Your task to perform on an android device: turn pop-ups off in chrome Image 0: 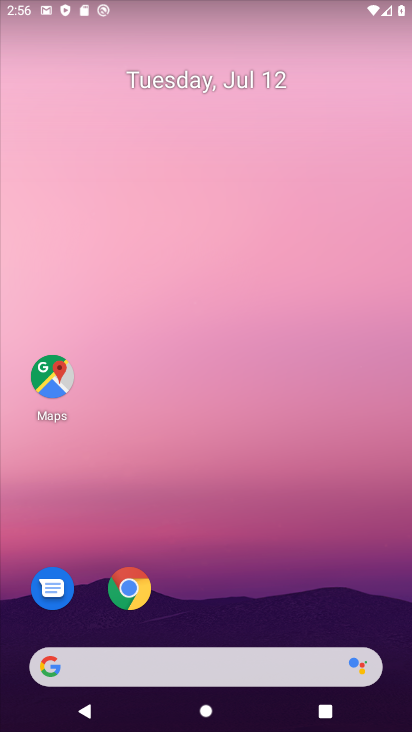
Step 0: drag from (230, 613) to (271, 17)
Your task to perform on an android device: turn pop-ups off in chrome Image 1: 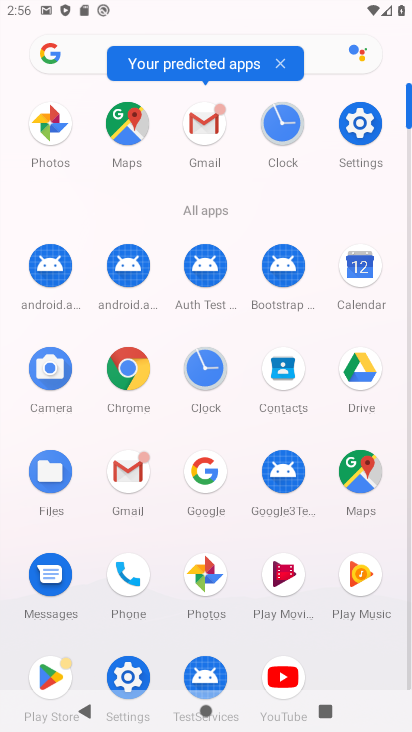
Step 1: click (134, 382)
Your task to perform on an android device: turn pop-ups off in chrome Image 2: 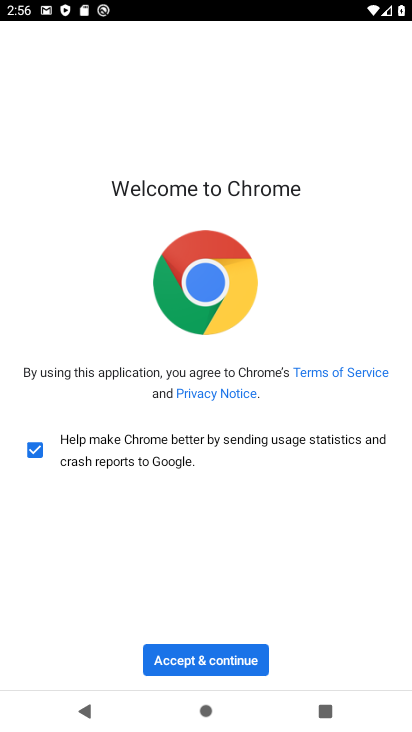
Step 2: click (258, 657)
Your task to perform on an android device: turn pop-ups off in chrome Image 3: 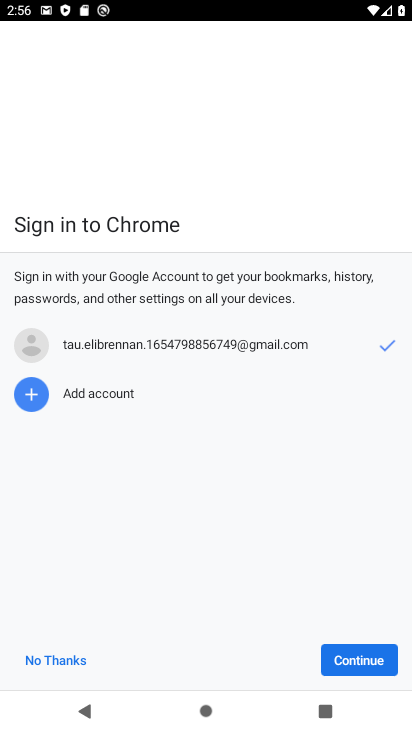
Step 3: click (387, 656)
Your task to perform on an android device: turn pop-ups off in chrome Image 4: 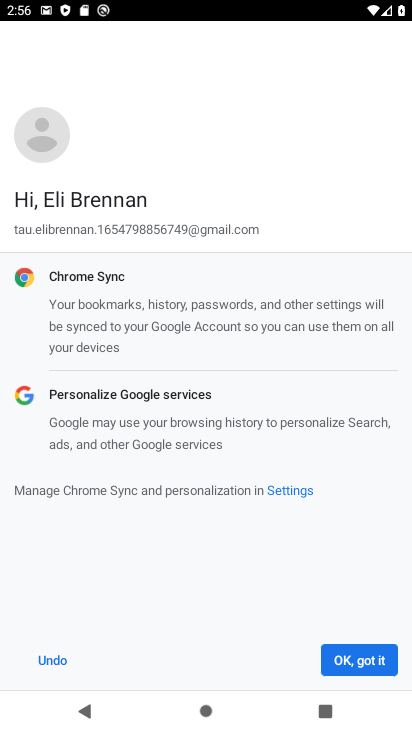
Step 4: click (378, 660)
Your task to perform on an android device: turn pop-ups off in chrome Image 5: 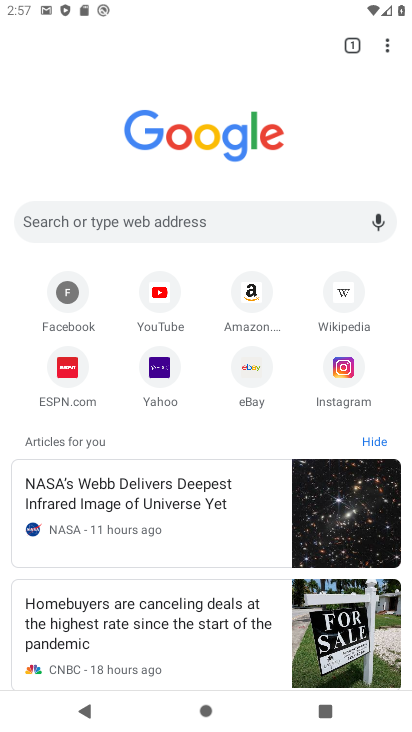
Step 5: click (389, 47)
Your task to perform on an android device: turn pop-ups off in chrome Image 6: 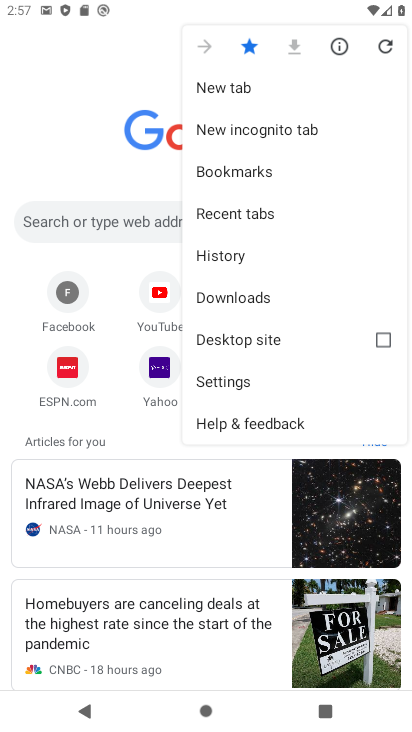
Step 6: click (295, 377)
Your task to perform on an android device: turn pop-ups off in chrome Image 7: 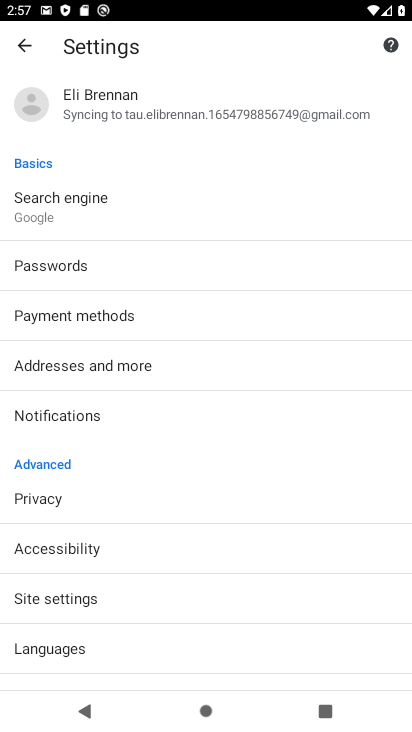
Step 7: click (251, 603)
Your task to perform on an android device: turn pop-ups off in chrome Image 8: 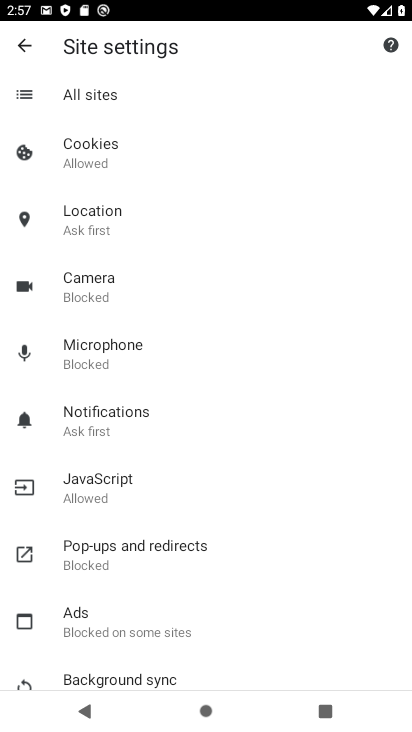
Step 8: click (223, 550)
Your task to perform on an android device: turn pop-ups off in chrome Image 9: 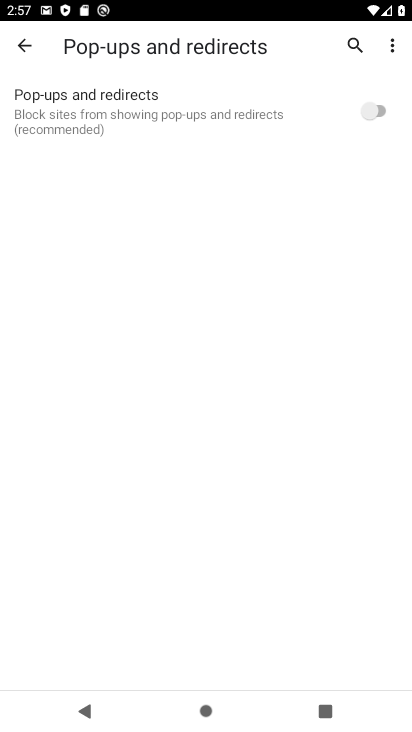
Step 9: task complete